Your task to perform on an android device: turn vacation reply on in the gmail app Image 0: 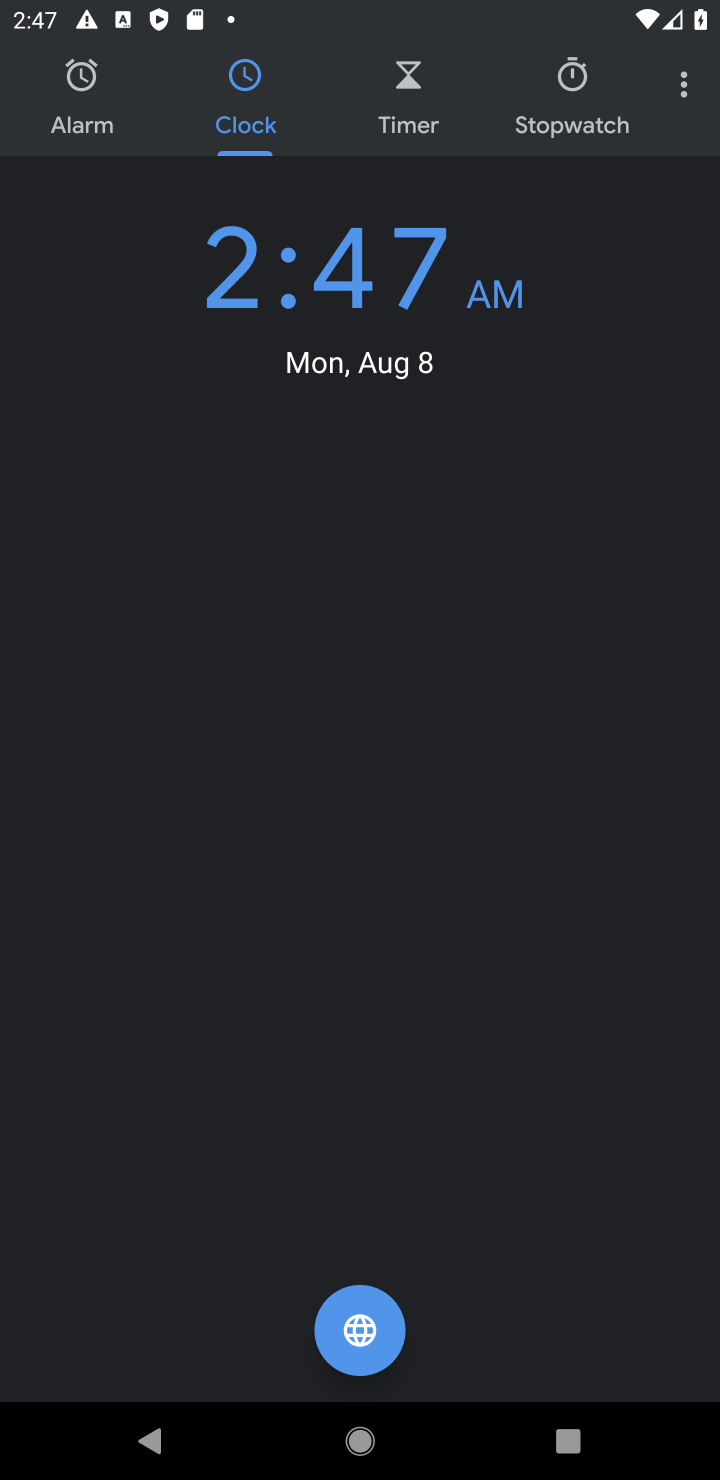
Step 0: press home button
Your task to perform on an android device: turn vacation reply on in the gmail app Image 1: 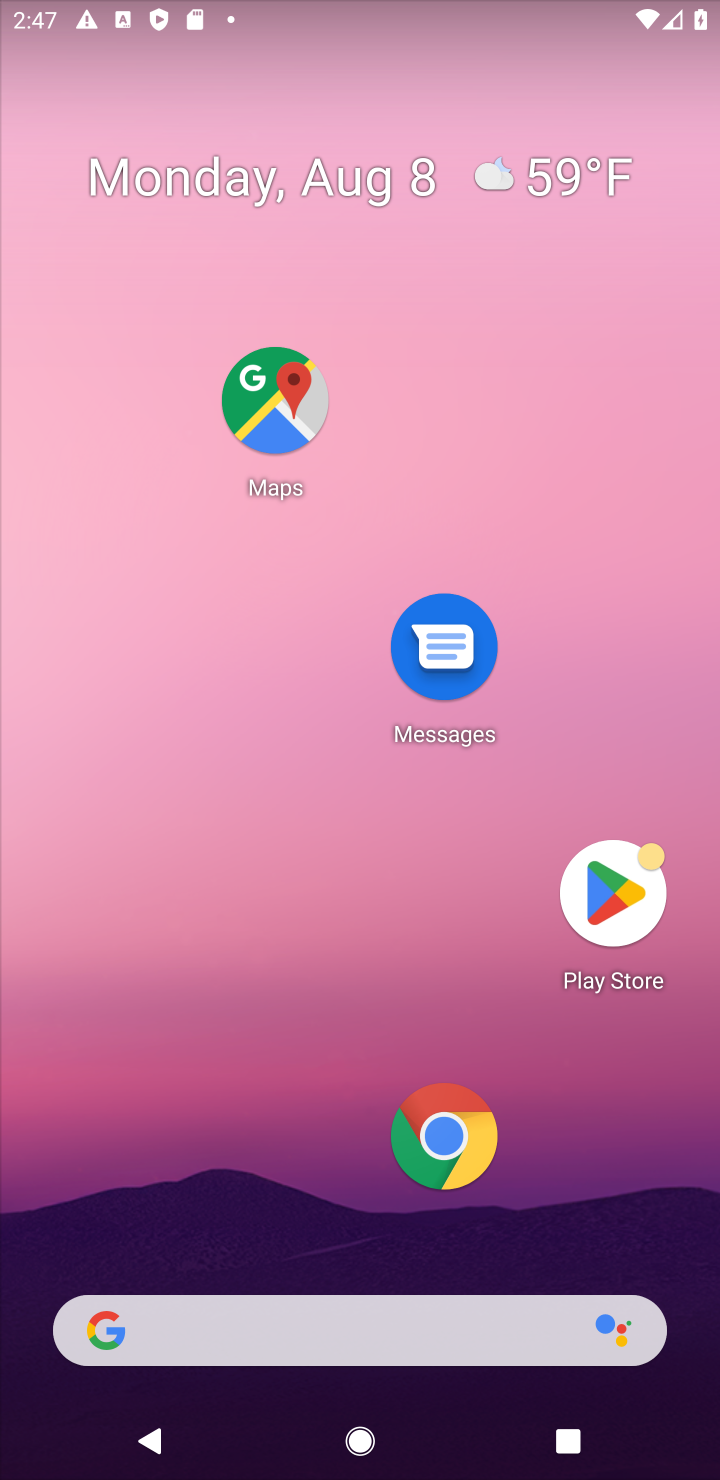
Step 1: task complete